Your task to perform on an android device: turn off airplane mode Image 0: 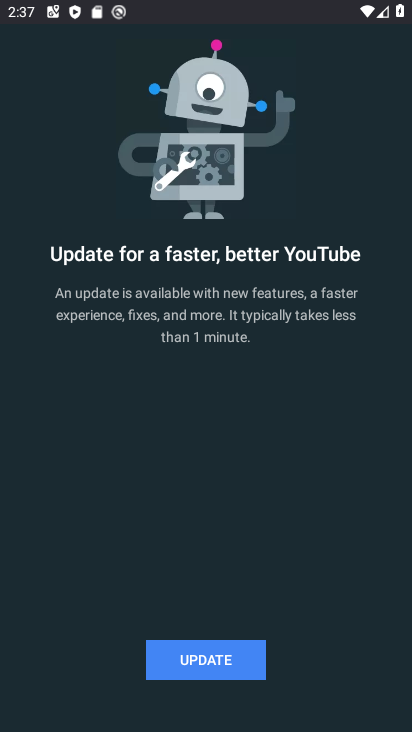
Step 0: press back button
Your task to perform on an android device: turn off airplane mode Image 1: 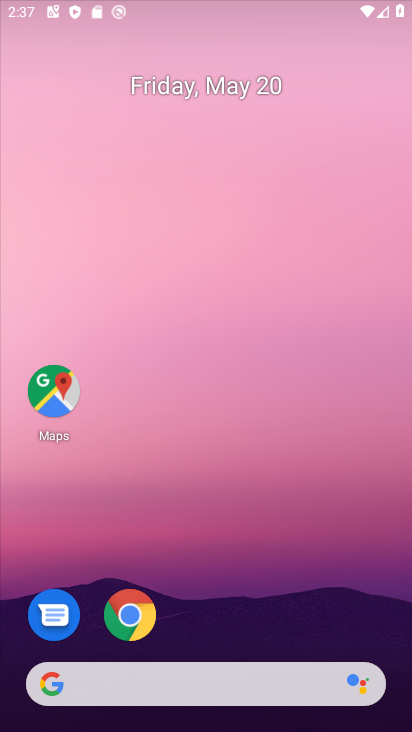
Step 1: drag from (294, 598) to (327, 216)
Your task to perform on an android device: turn off airplane mode Image 2: 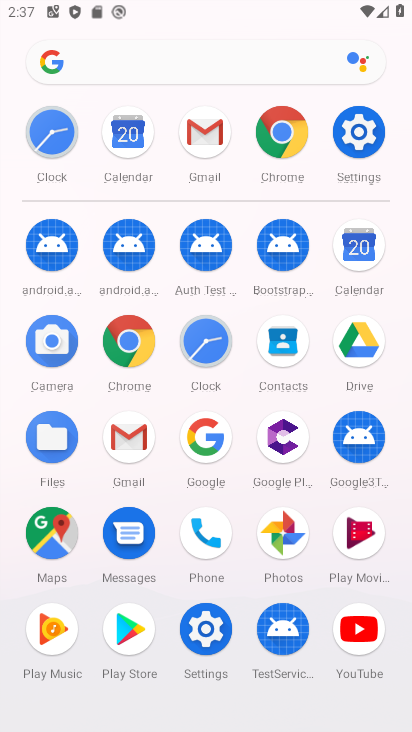
Step 2: click (363, 125)
Your task to perform on an android device: turn off airplane mode Image 3: 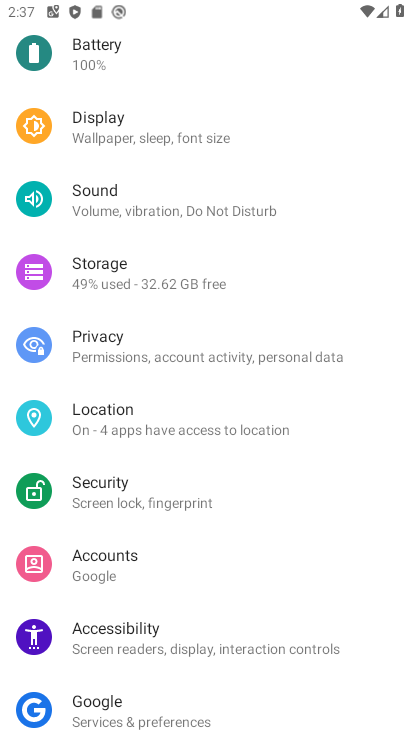
Step 3: drag from (159, 143) to (157, 610)
Your task to perform on an android device: turn off airplane mode Image 4: 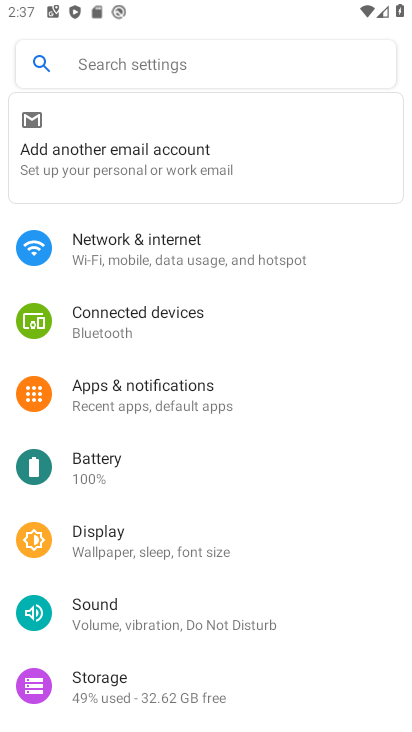
Step 4: click (133, 251)
Your task to perform on an android device: turn off airplane mode Image 5: 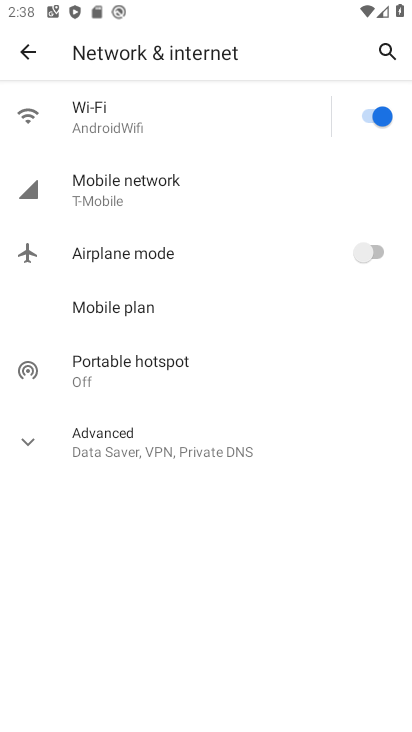
Step 5: task complete